Your task to perform on an android device: Check the weather Image 0: 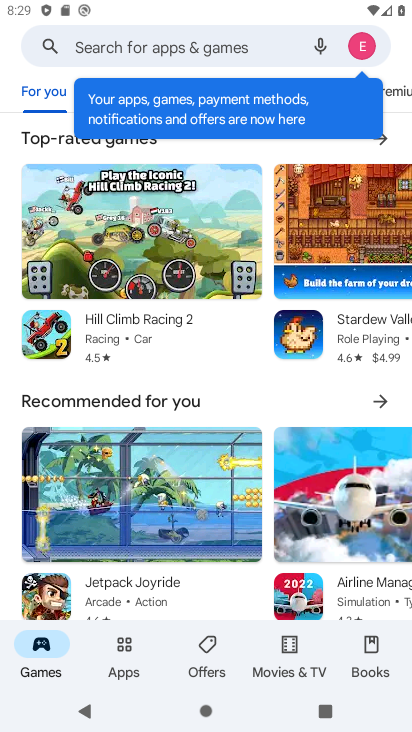
Step 0: press home button
Your task to perform on an android device: Check the weather Image 1: 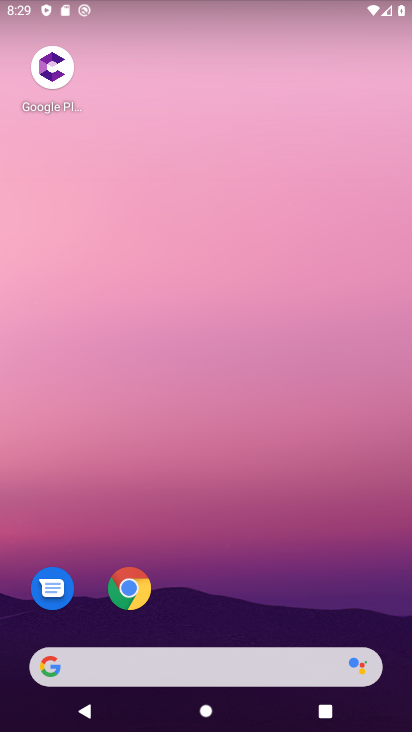
Step 1: drag from (254, 597) to (263, 121)
Your task to perform on an android device: Check the weather Image 2: 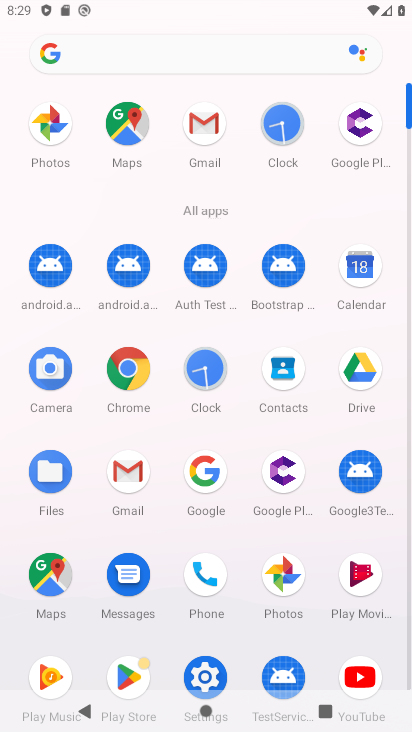
Step 2: click (121, 370)
Your task to perform on an android device: Check the weather Image 3: 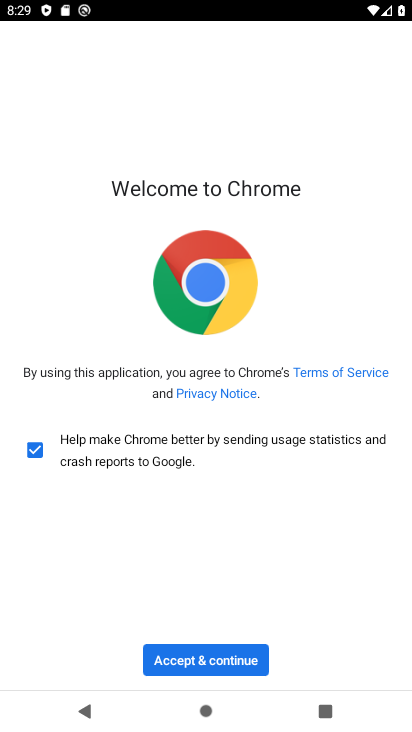
Step 3: click (227, 659)
Your task to perform on an android device: Check the weather Image 4: 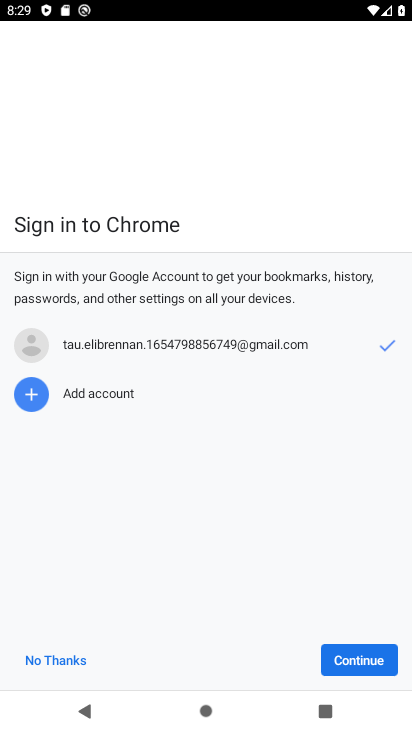
Step 4: click (362, 658)
Your task to perform on an android device: Check the weather Image 5: 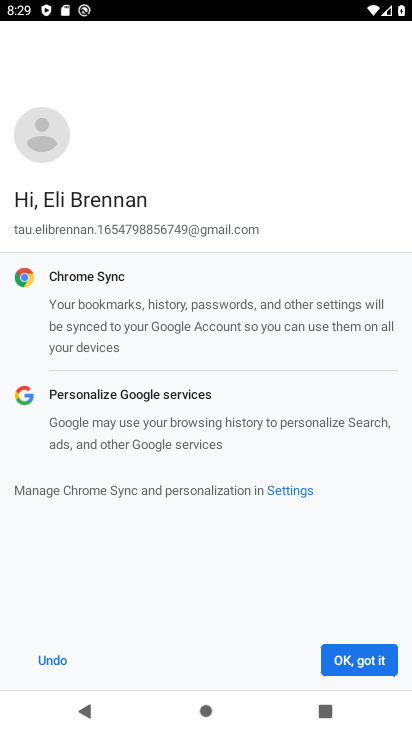
Step 5: click (362, 658)
Your task to perform on an android device: Check the weather Image 6: 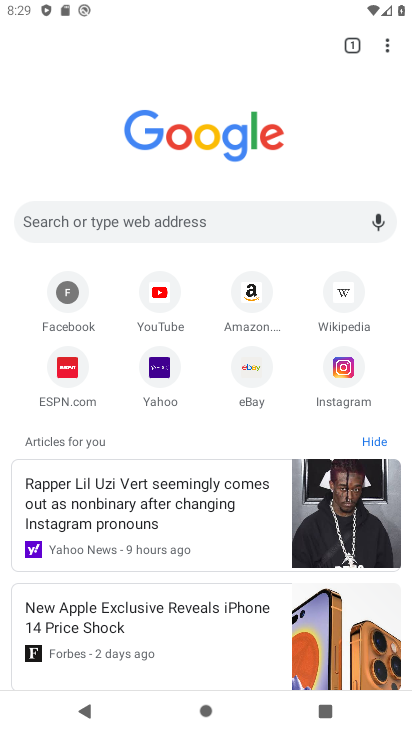
Step 6: click (270, 220)
Your task to perform on an android device: Check the weather Image 7: 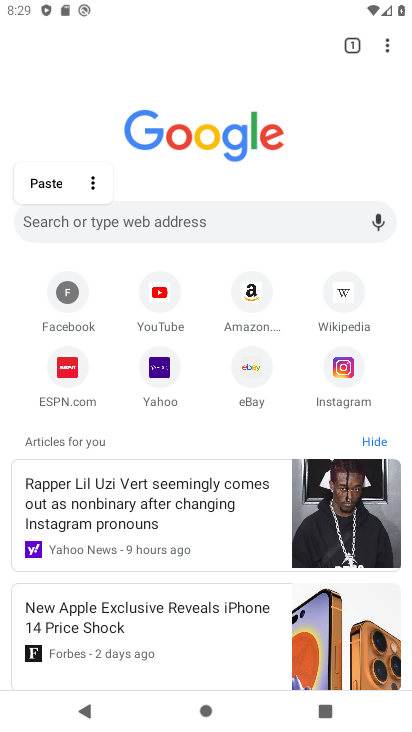
Step 7: click (161, 228)
Your task to perform on an android device: Check the weather Image 8: 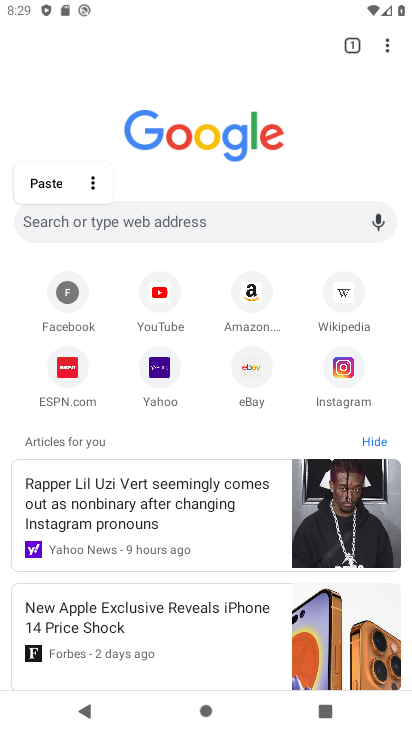
Step 8: type "check the weather"
Your task to perform on an android device: Check the weather Image 9: 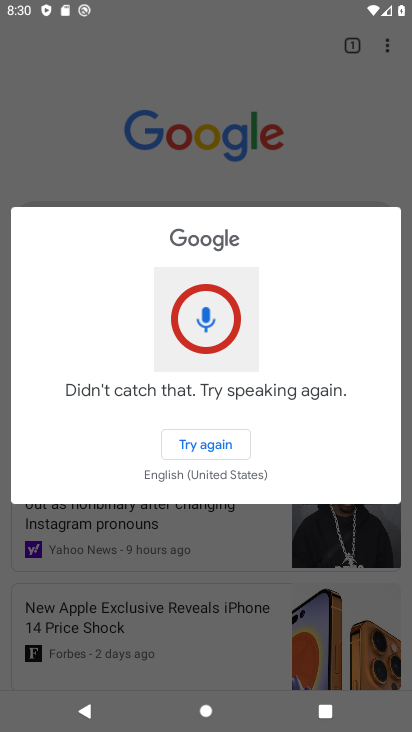
Step 9: click (77, 143)
Your task to perform on an android device: Check the weather Image 10: 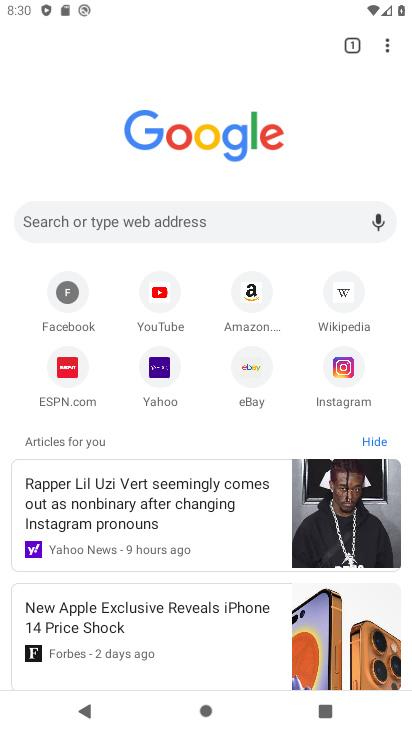
Step 10: click (87, 231)
Your task to perform on an android device: Check the weather Image 11: 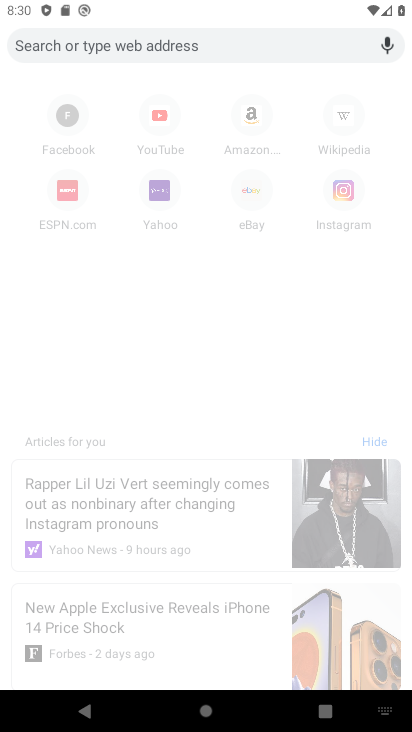
Step 11: type "Check the weather"
Your task to perform on an android device: Check the weather Image 12: 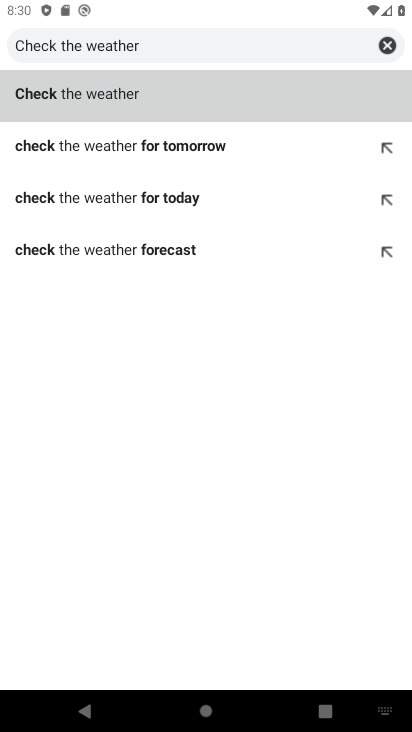
Step 12: click (74, 90)
Your task to perform on an android device: Check the weather Image 13: 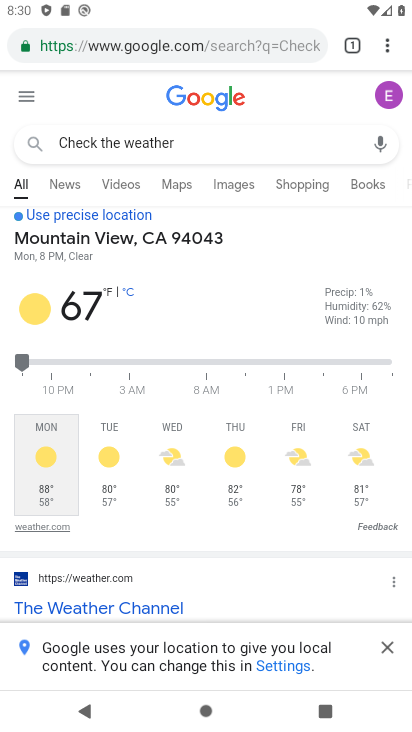
Step 13: task complete